Your task to perform on an android device: turn pop-ups off in chrome Image 0: 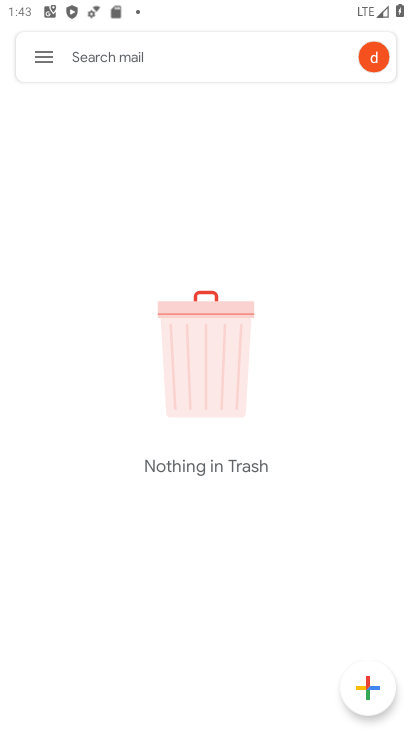
Step 0: press home button
Your task to perform on an android device: turn pop-ups off in chrome Image 1: 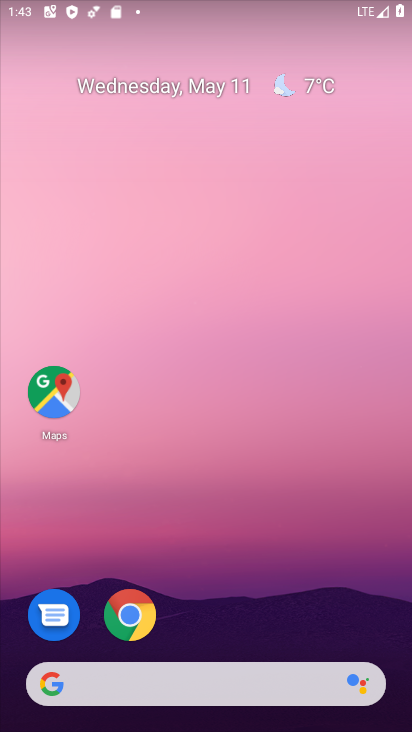
Step 1: click (131, 613)
Your task to perform on an android device: turn pop-ups off in chrome Image 2: 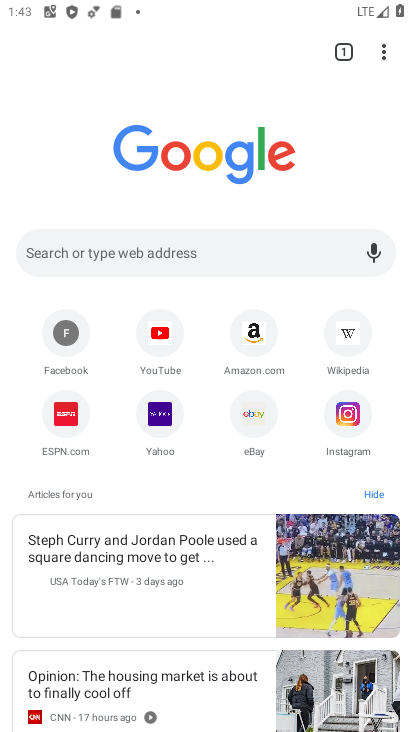
Step 2: drag from (381, 46) to (211, 447)
Your task to perform on an android device: turn pop-ups off in chrome Image 3: 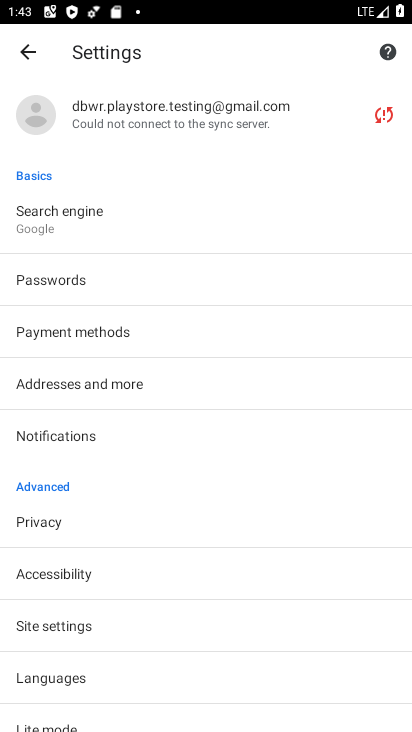
Step 3: drag from (213, 557) to (277, 273)
Your task to perform on an android device: turn pop-ups off in chrome Image 4: 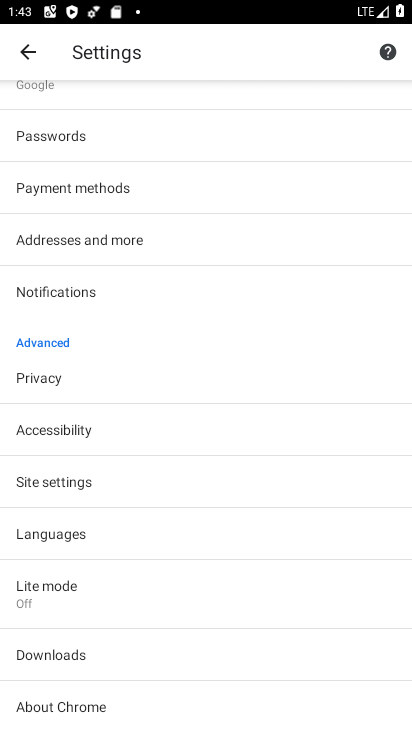
Step 4: click (65, 486)
Your task to perform on an android device: turn pop-ups off in chrome Image 5: 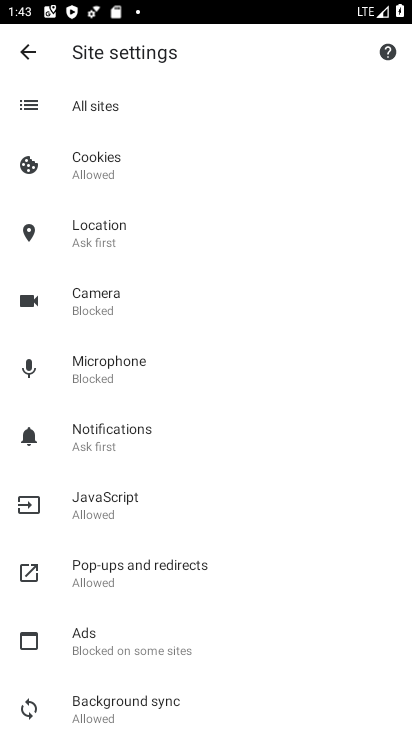
Step 5: click (133, 564)
Your task to perform on an android device: turn pop-ups off in chrome Image 6: 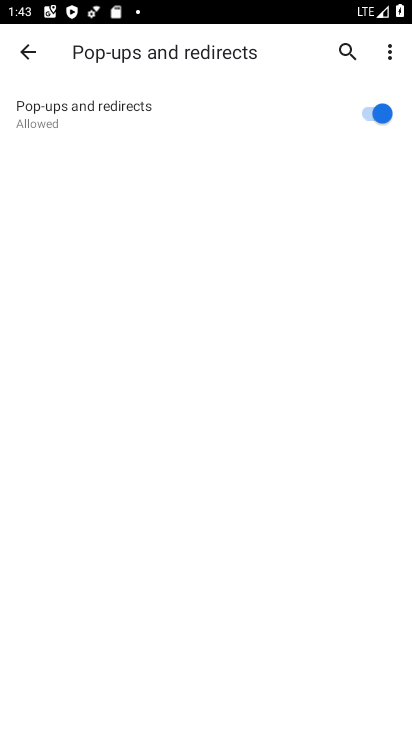
Step 6: click (366, 110)
Your task to perform on an android device: turn pop-ups off in chrome Image 7: 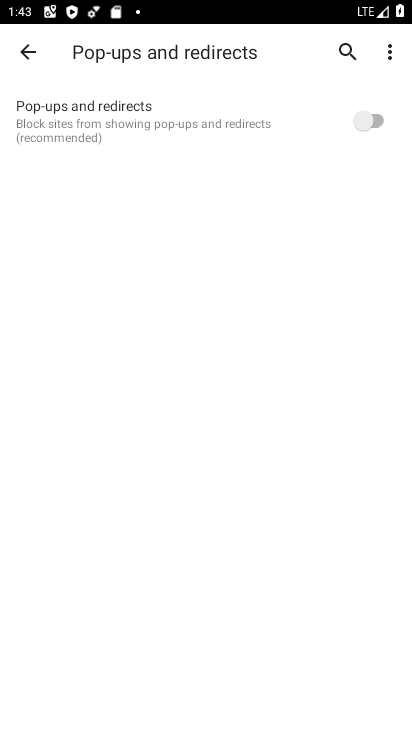
Step 7: task complete